Your task to perform on an android device: Do I have any events today? Image 0: 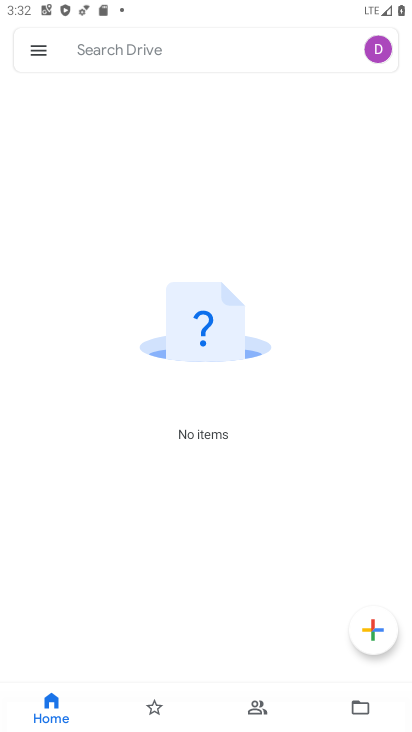
Step 0: press home button
Your task to perform on an android device: Do I have any events today? Image 1: 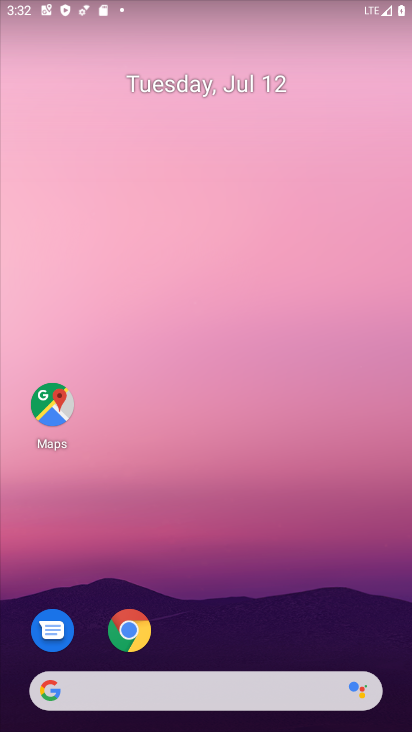
Step 1: drag from (127, 680) to (391, 327)
Your task to perform on an android device: Do I have any events today? Image 2: 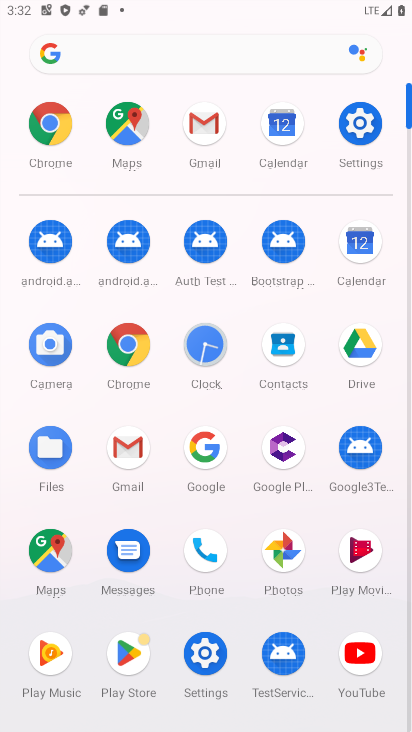
Step 2: click (351, 249)
Your task to perform on an android device: Do I have any events today? Image 3: 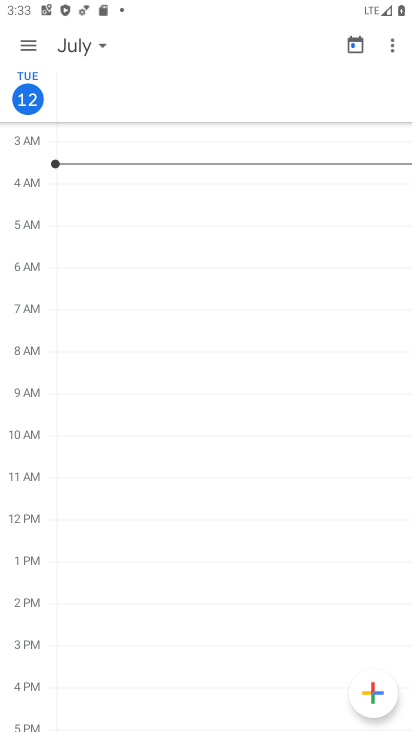
Step 3: click (107, 36)
Your task to perform on an android device: Do I have any events today? Image 4: 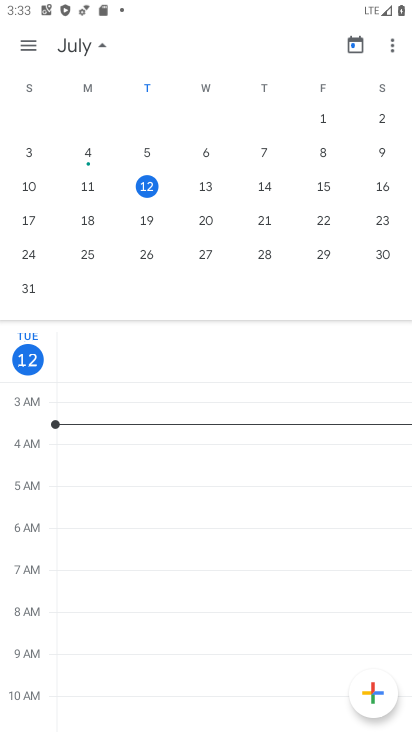
Step 4: click (142, 193)
Your task to perform on an android device: Do I have any events today? Image 5: 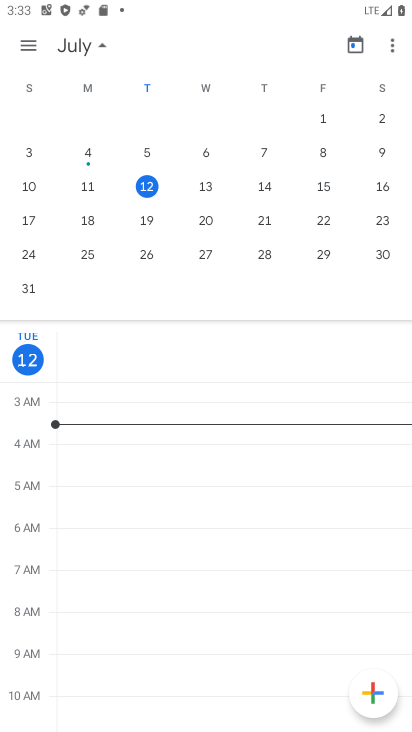
Step 5: task complete